Your task to perform on an android device: Search for Mexican restaurants on Maps Image 0: 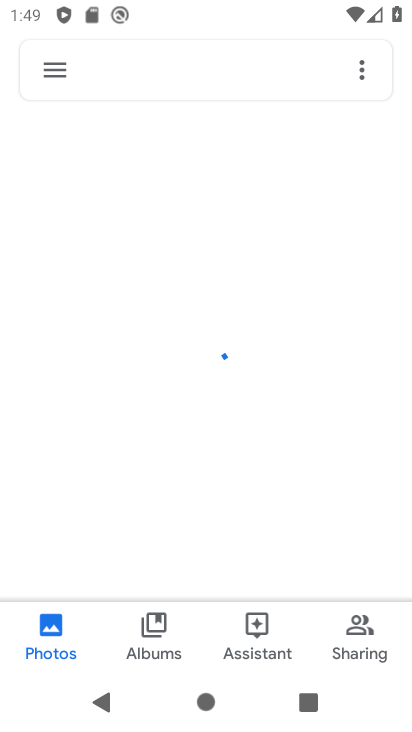
Step 0: press home button
Your task to perform on an android device: Search for Mexican restaurants on Maps Image 1: 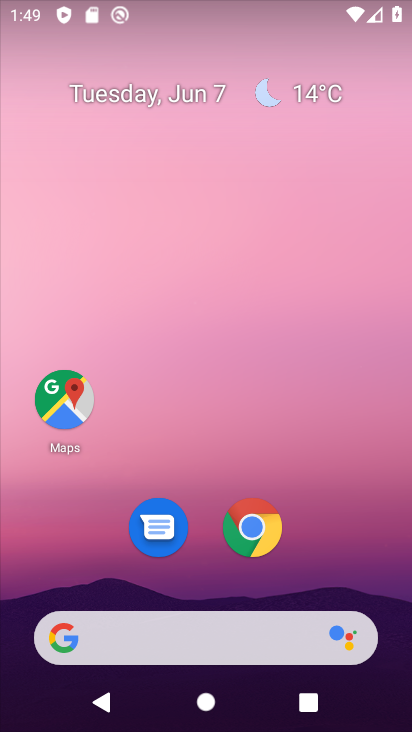
Step 1: click (56, 397)
Your task to perform on an android device: Search for Mexican restaurants on Maps Image 2: 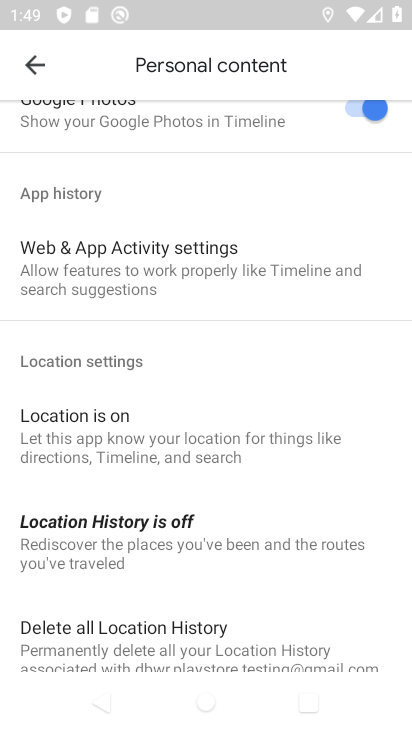
Step 2: click (37, 61)
Your task to perform on an android device: Search for Mexican restaurants on Maps Image 3: 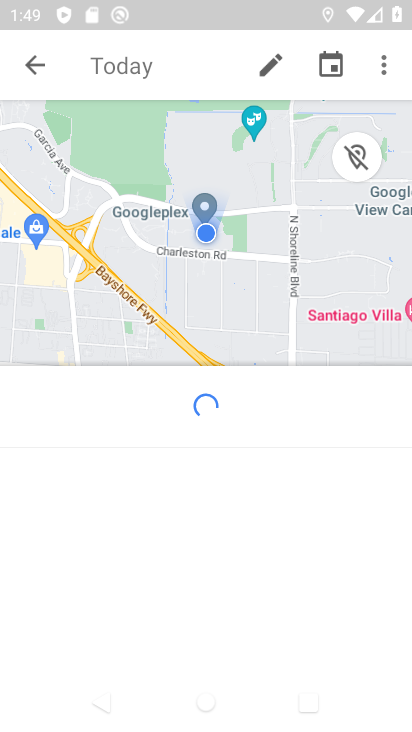
Step 3: click (37, 61)
Your task to perform on an android device: Search for Mexican restaurants on Maps Image 4: 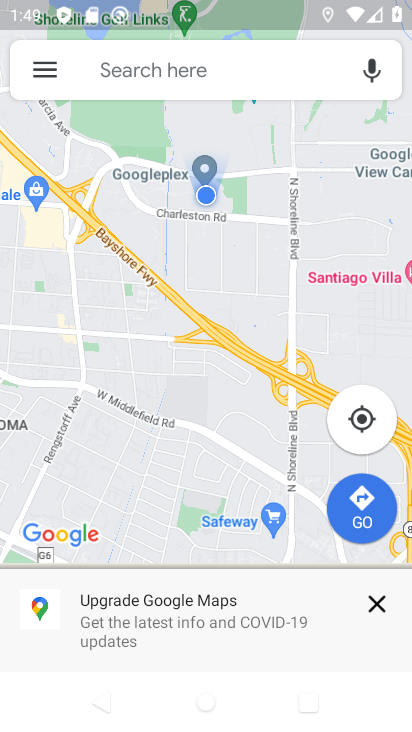
Step 4: click (164, 82)
Your task to perform on an android device: Search for Mexican restaurants on Maps Image 5: 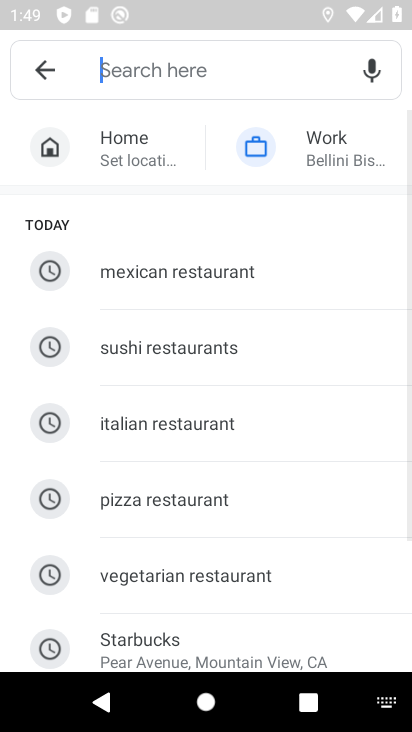
Step 5: click (227, 272)
Your task to perform on an android device: Search for Mexican restaurants on Maps Image 6: 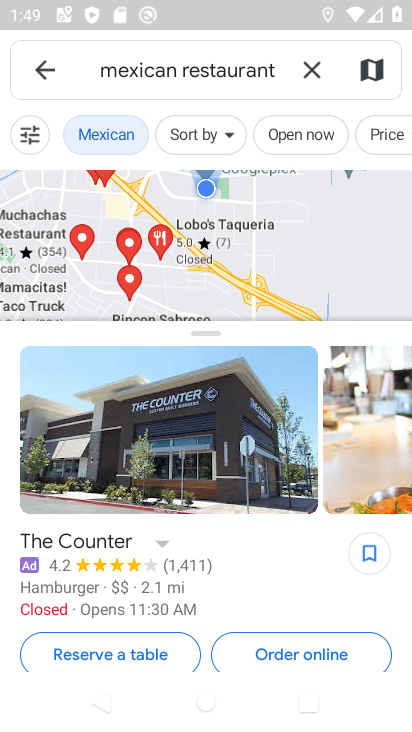
Step 6: task complete